Your task to perform on an android device: turn off data saver in the chrome app Image 0: 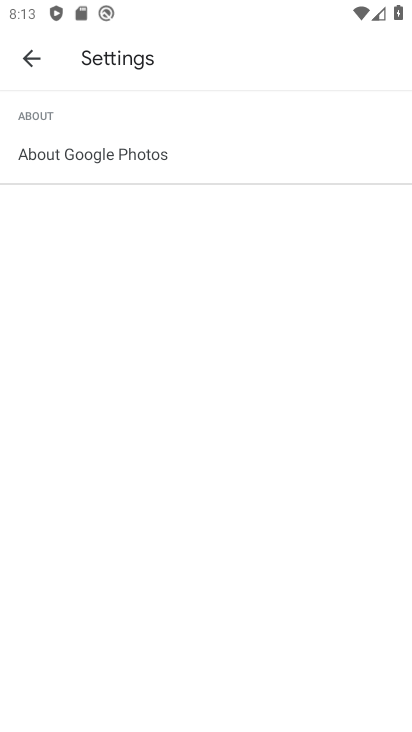
Step 0: press home button
Your task to perform on an android device: turn off data saver in the chrome app Image 1: 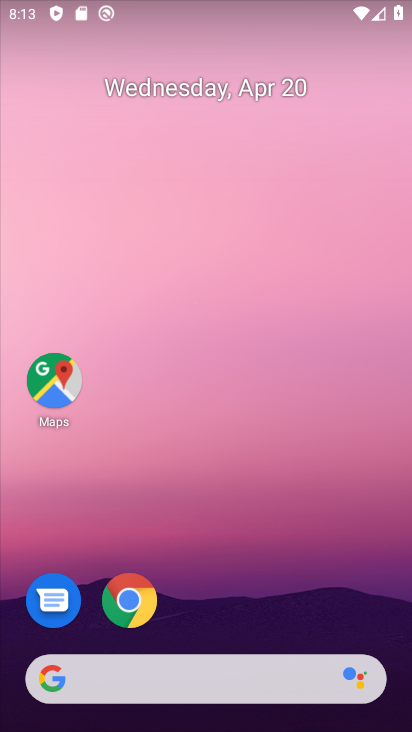
Step 1: click (137, 607)
Your task to perform on an android device: turn off data saver in the chrome app Image 2: 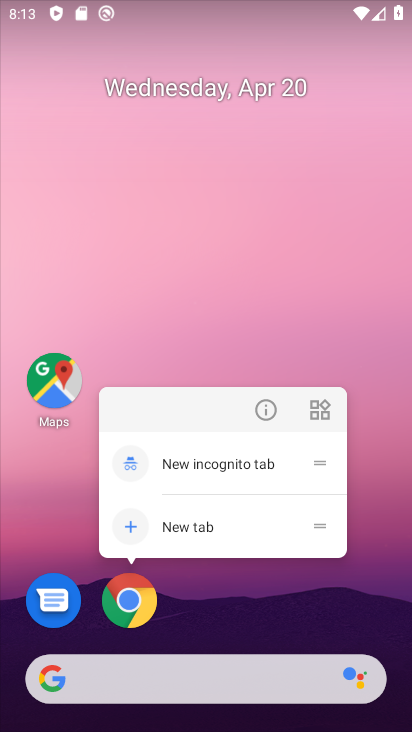
Step 2: click (144, 612)
Your task to perform on an android device: turn off data saver in the chrome app Image 3: 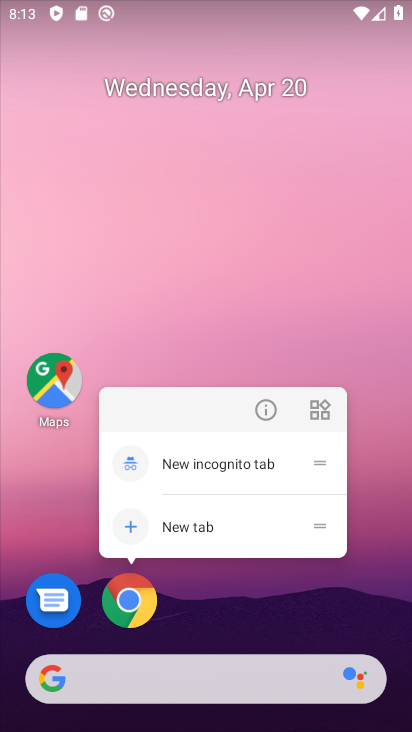
Step 3: click (130, 592)
Your task to perform on an android device: turn off data saver in the chrome app Image 4: 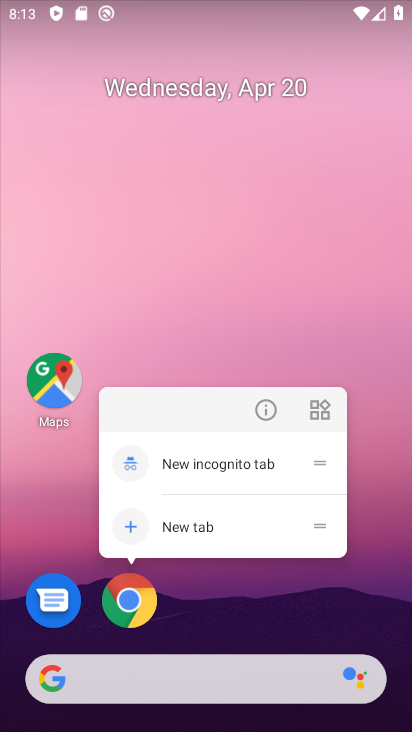
Step 4: click (140, 605)
Your task to perform on an android device: turn off data saver in the chrome app Image 5: 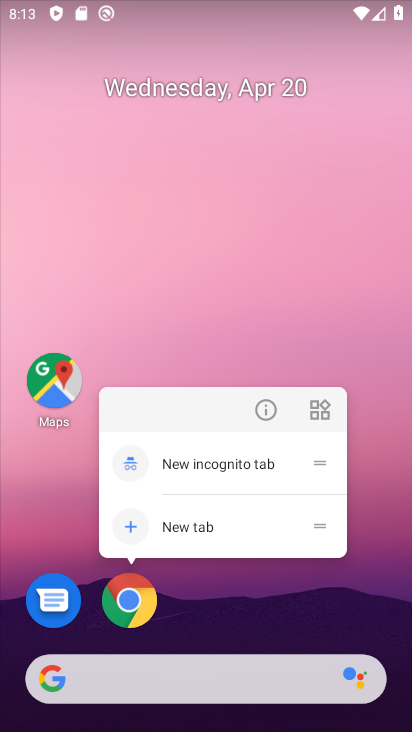
Step 5: click (140, 605)
Your task to perform on an android device: turn off data saver in the chrome app Image 6: 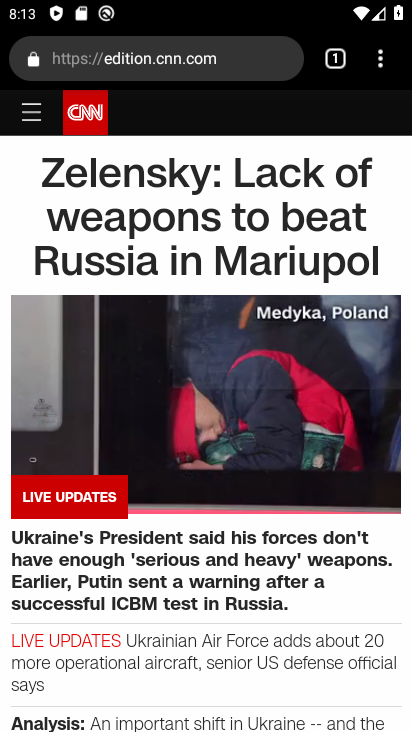
Step 6: drag from (381, 55) to (185, 628)
Your task to perform on an android device: turn off data saver in the chrome app Image 7: 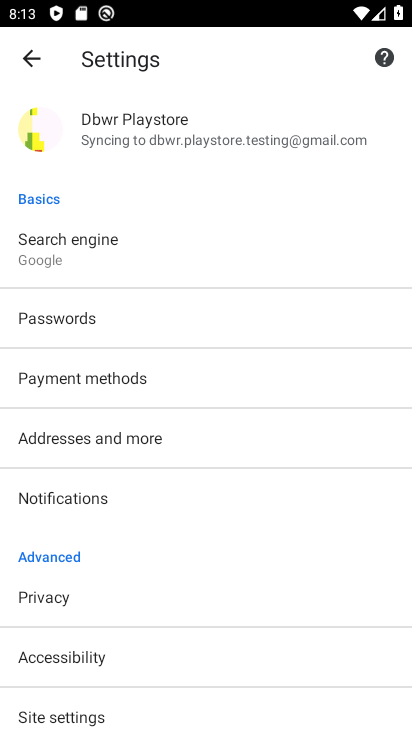
Step 7: drag from (195, 637) to (314, 157)
Your task to perform on an android device: turn off data saver in the chrome app Image 8: 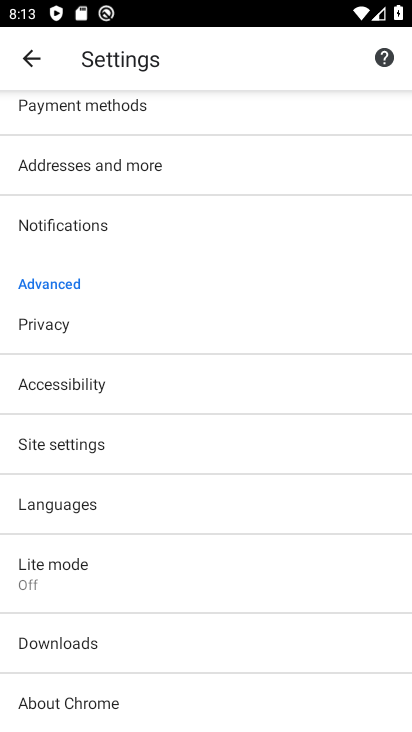
Step 8: drag from (183, 625) to (243, 332)
Your task to perform on an android device: turn off data saver in the chrome app Image 9: 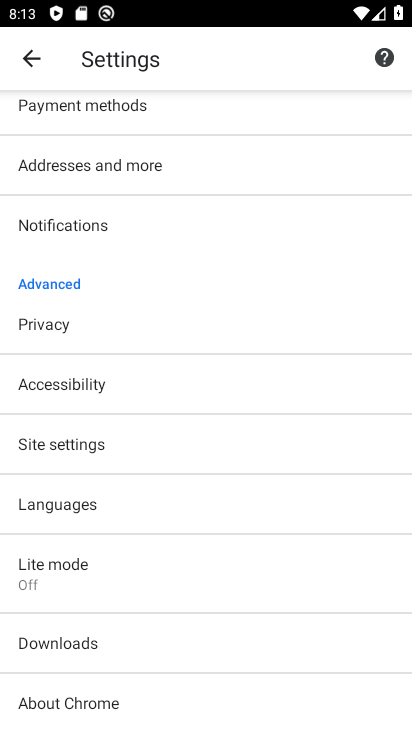
Step 9: click (56, 580)
Your task to perform on an android device: turn off data saver in the chrome app Image 10: 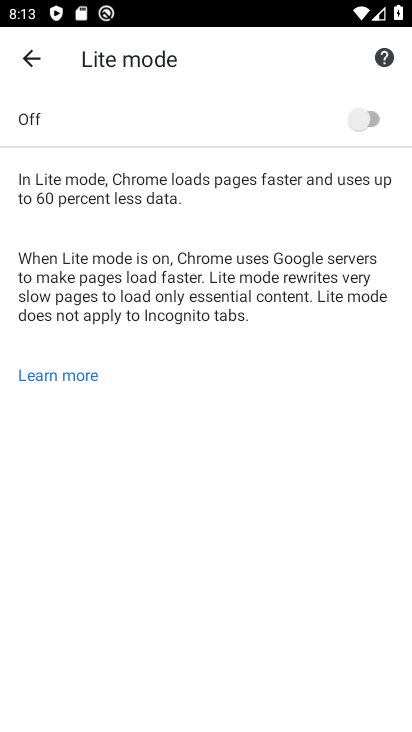
Step 10: click (355, 120)
Your task to perform on an android device: turn off data saver in the chrome app Image 11: 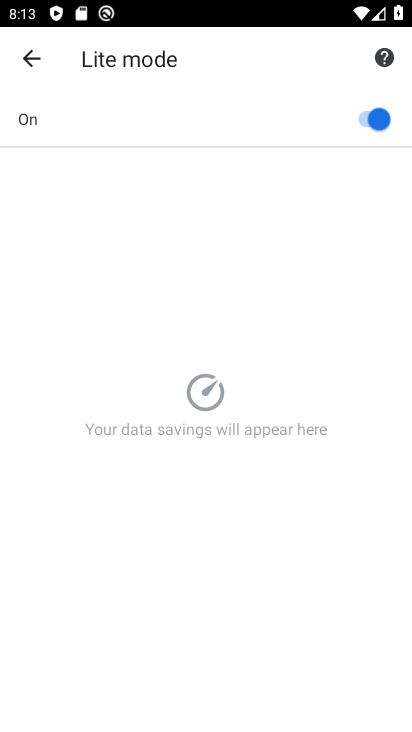
Step 11: click (355, 120)
Your task to perform on an android device: turn off data saver in the chrome app Image 12: 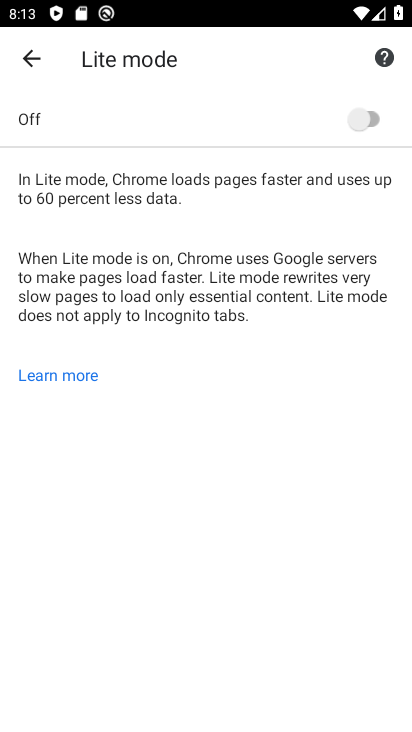
Step 12: task complete